Your task to perform on an android device: Open settings on Google Maps Image 0: 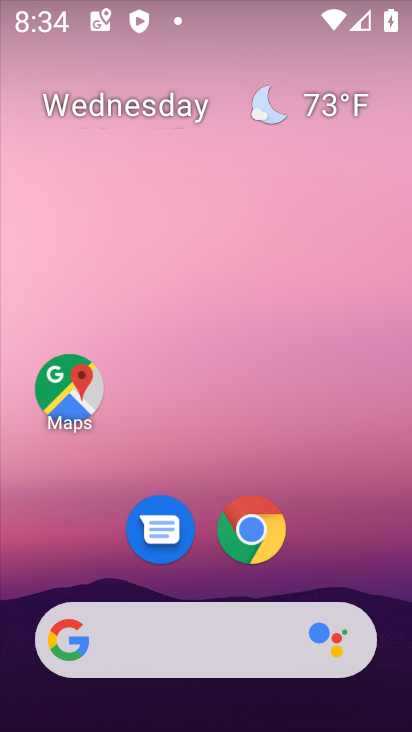
Step 0: drag from (363, 562) to (371, 163)
Your task to perform on an android device: Open settings on Google Maps Image 1: 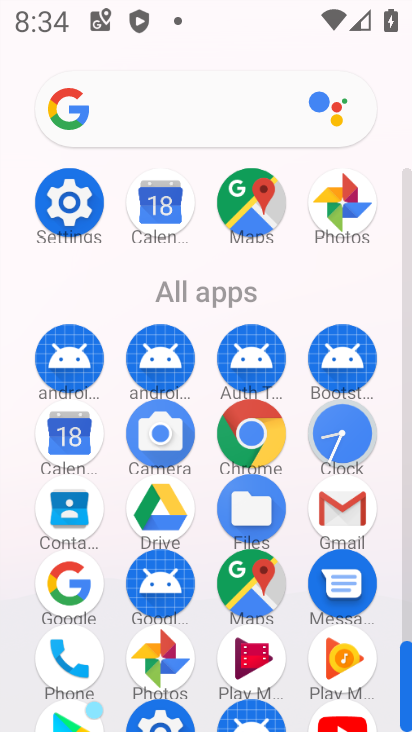
Step 1: click (254, 199)
Your task to perform on an android device: Open settings on Google Maps Image 2: 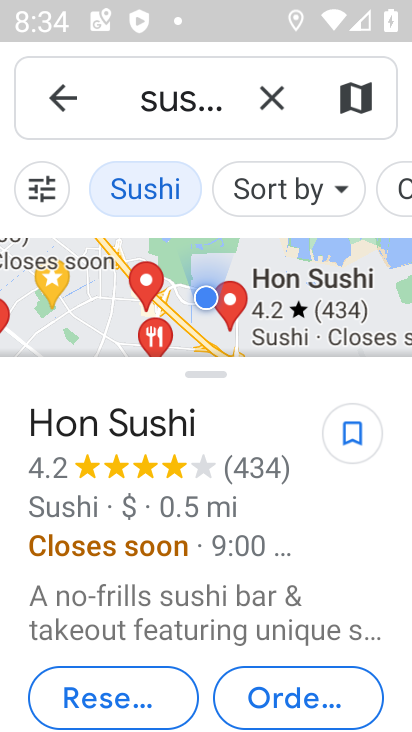
Step 2: click (63, 93)
Your task to perform on an android device: Open settings on Google Maps Image 3: 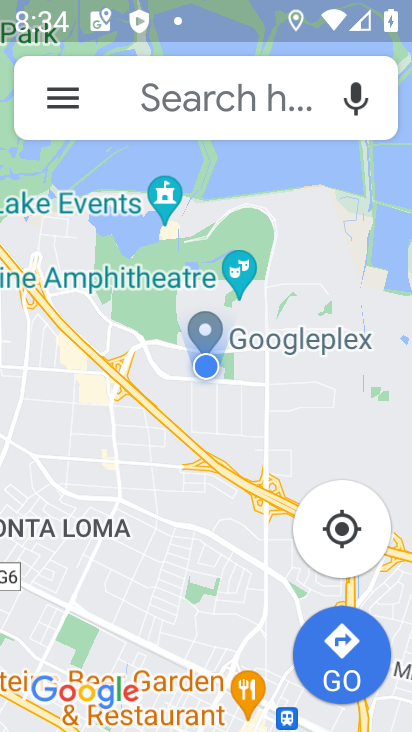
Step 3: click (62, 109)
Your task to perform on an android device: Open settings on Google Maps Image 4: 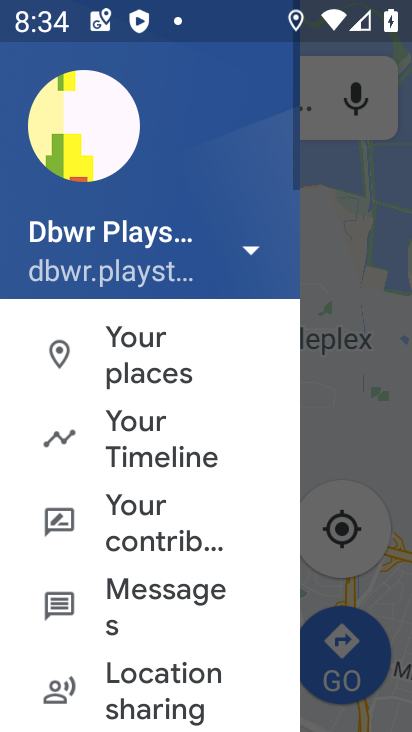
Step 4: drag from (227, 595) to (224, 460)
Your task to perform on an android device: Open settings on Google Maps Image 5: 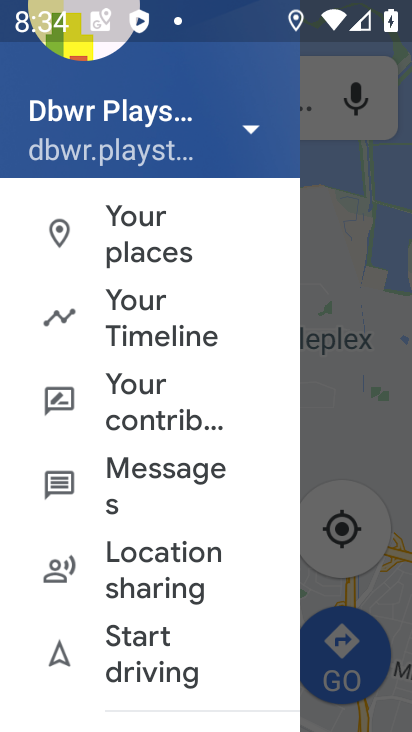
Step 5: drag from (234, 630) to (241, 481)
Your task to perform on an android device: Open settings on Google Maps Image 6: 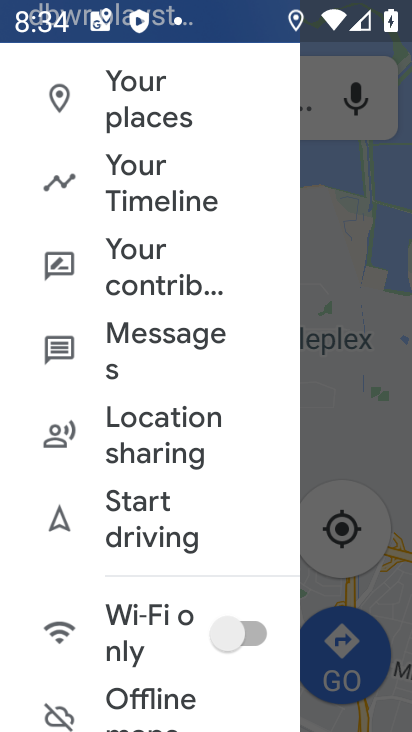
Step 6: drag from (209, 652) to (240, 461)
Your task to perform on an android device: Open settings on Google Maps Image 7: 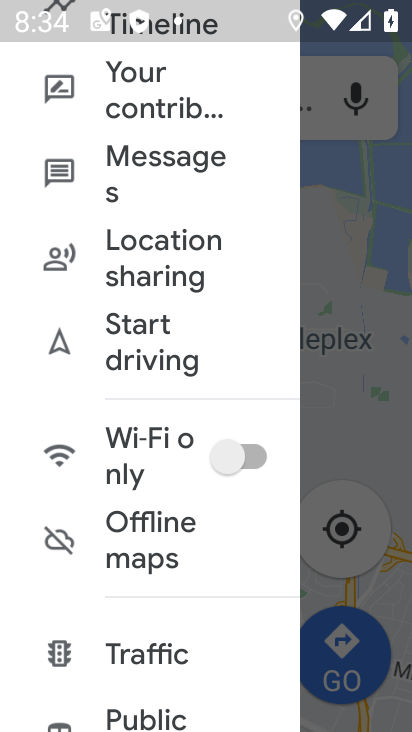
Step 7: drag from (221, 659) to (207, 554)
Your task to perform on an android device: Open settings on Google Maps Image 8: 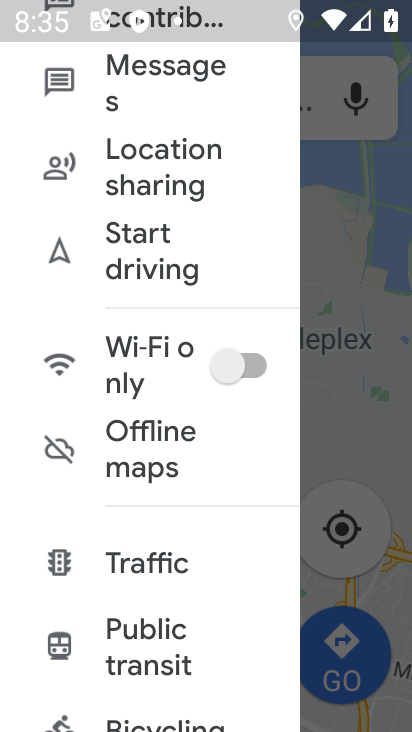
Step 8: drag from (205, 680) to (218, 540)
Your task to perform on an android device: Open settings on Google Maps Image 9: 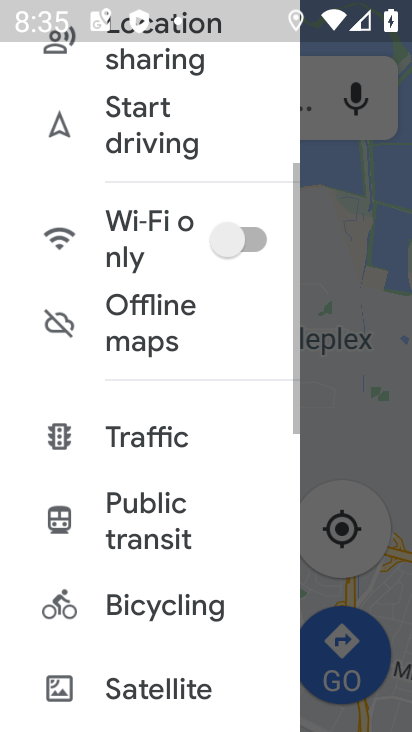
Step 9: drag from (241, 684) to (237, 530)
Your task to perform on an android device: Open settings on Google Maps Image 10: 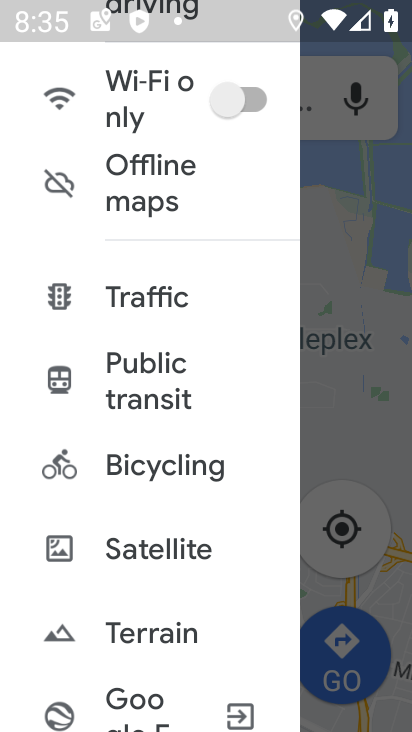
Step 10: drag from (227, 613) to (240, 495)
Your task to perform on an android device: Open settings on Google Maps Image 11: 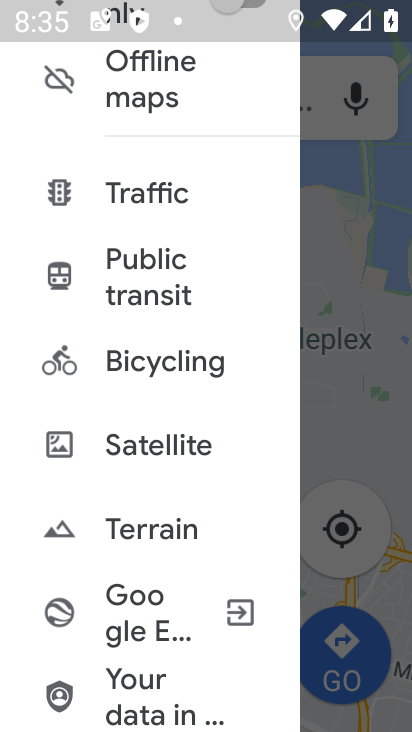
Step 11: drag from (214, 669) to (229, 480)
Your task to perform on an android device: Open settings on Google Maps Image 12: 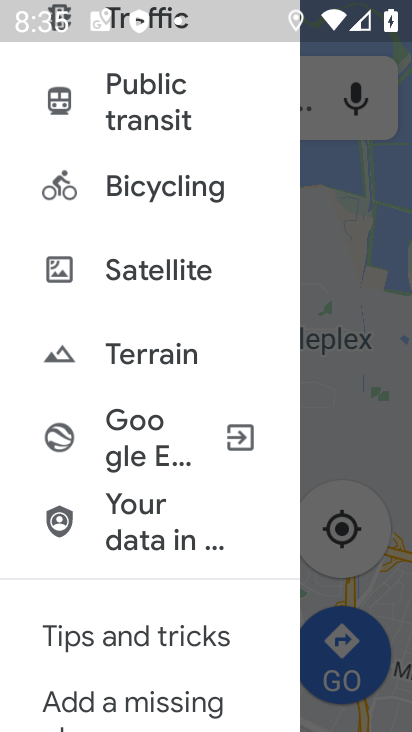
Step 12: drag from (231, 663) to (224, 552)
Your task to perform on an android device: Open settings on Google Maps Image 13: 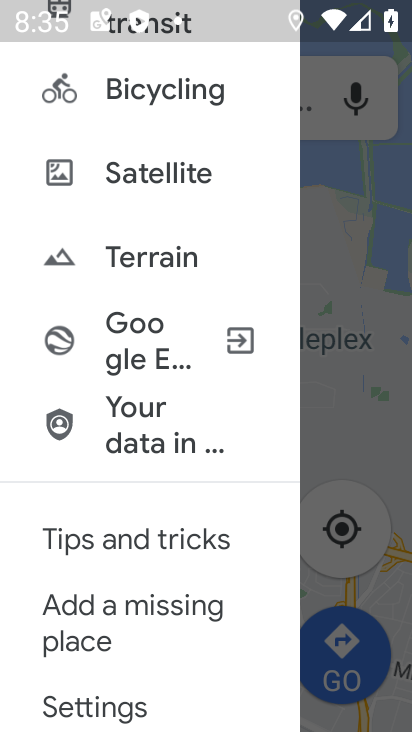
Step 13: click (172, 713)
Your task to perform on an android device: Open settings on Google Maps Image 14: 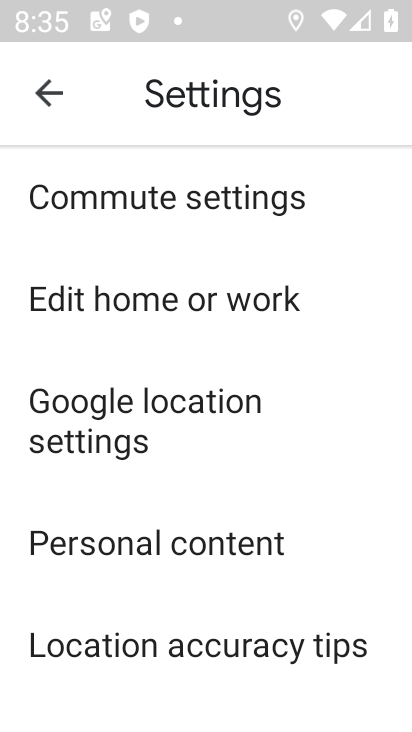
Step 14: press home button
Your task to perform on an android device: Open settings on Google Maps Image 15: 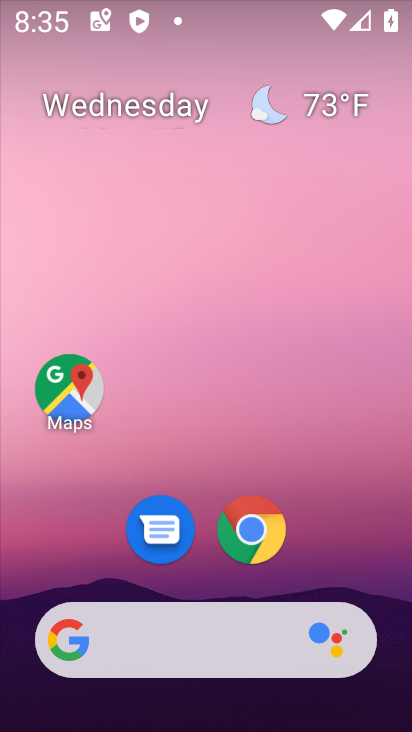
Step 15: drag from (377, 562) to (361, 173)
Your task to perform on an android device: Open settings on Google Maps Image 16: 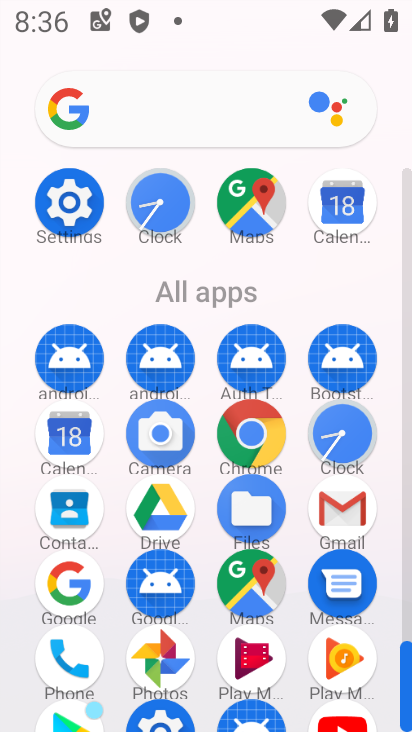
Step 16: click (262, 190)
Your task to perform on an android device: Open settings on Google Maps Image 17: 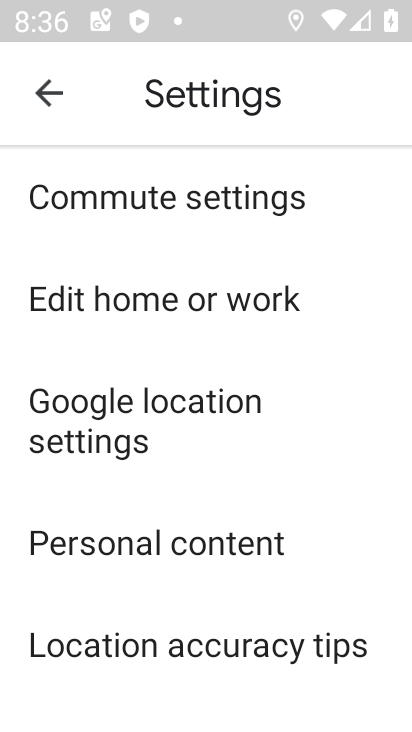
Step 17: task complete